Your task to perform on an android device: Go to Reddit.com Image 0: 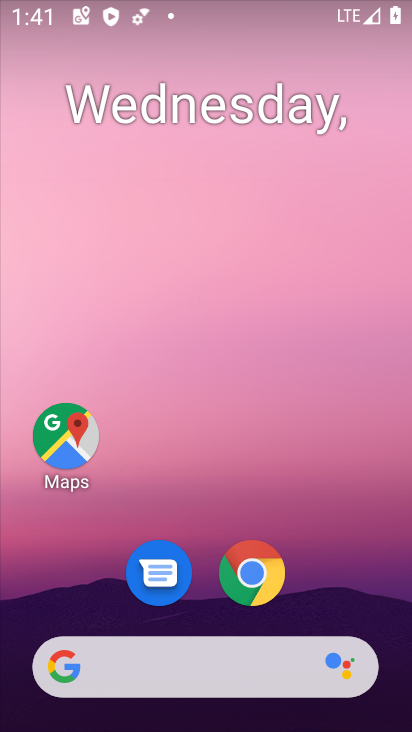
Step 0: drag from (213, 531) to (231, 233)
Your task to perform on an android device: Go to Reddit.com Image 1: 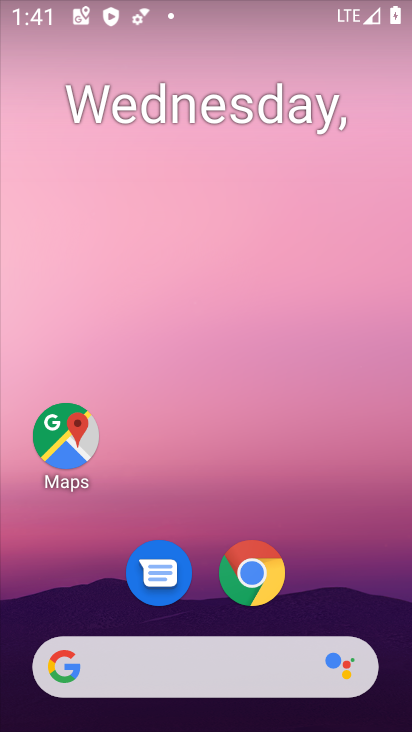
Step 1: drag from (233, 369) to (314, 0)
Your task to perform on an android device: Go to Reddit.com Image 2: 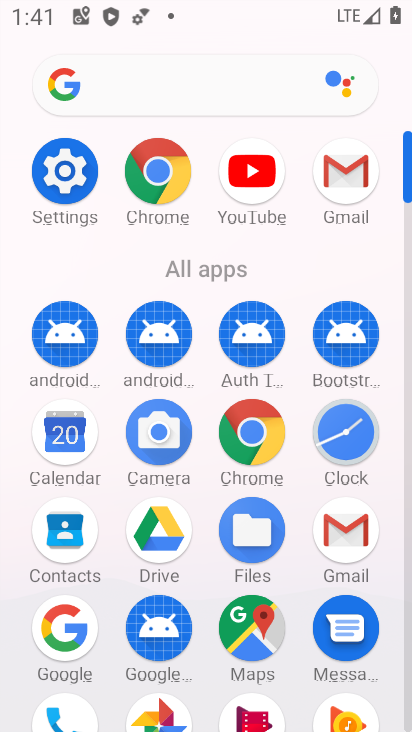
Step 2: click (67, 629)
Your task to perform on an android device: Go to Reddit.com Image 3: 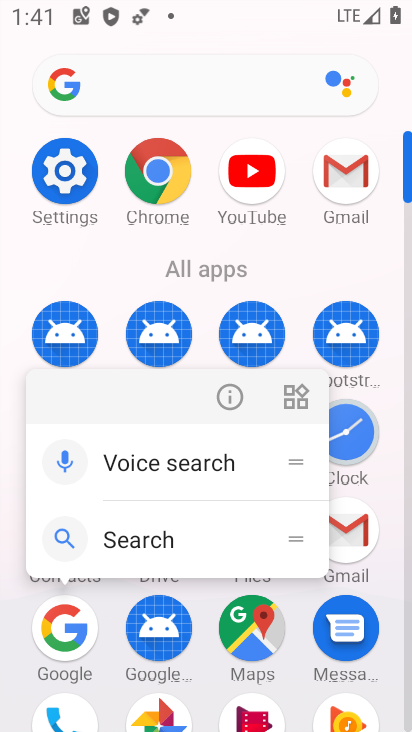
Step 3: click (67, 629)
Your task to perform on an android device: Go to Reddit.com Image 4: 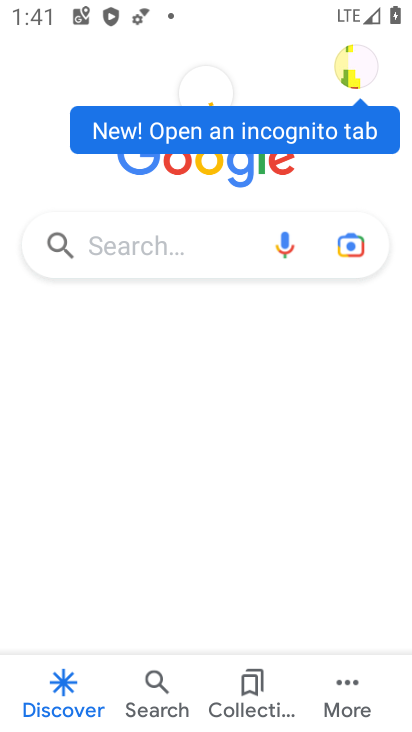
Step 4: click (151, 237)
Your task to perform on an android device: Go to Reddit.com Image 5: 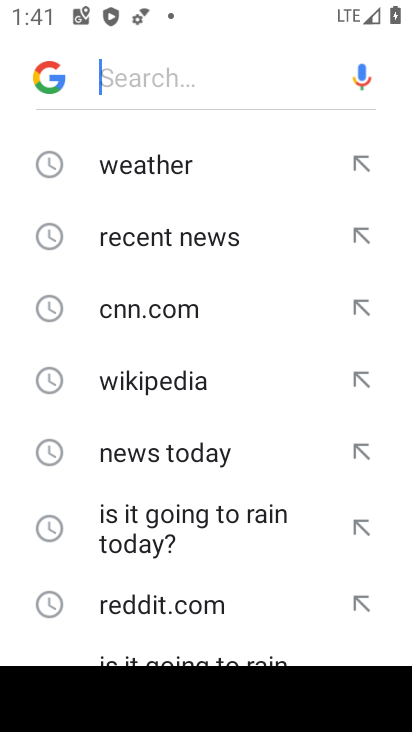
Step 5: type "reddit.com"
Your task to perform on an android device: Go to Reddit.com Image 6: 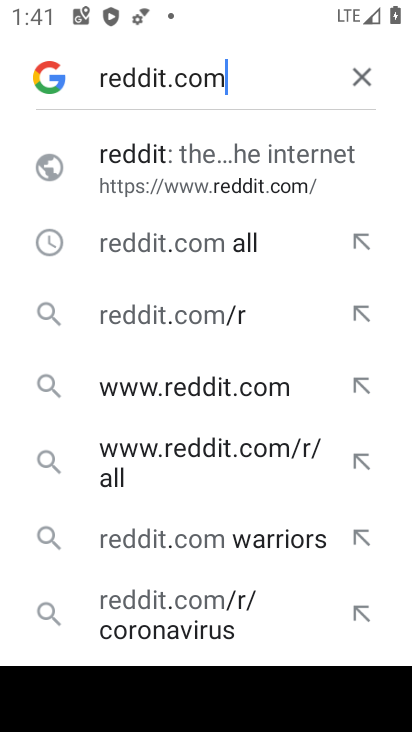
Step 6: click (206, 178)
Your task to perform on an android device: Go to Reddit.com Image 7: 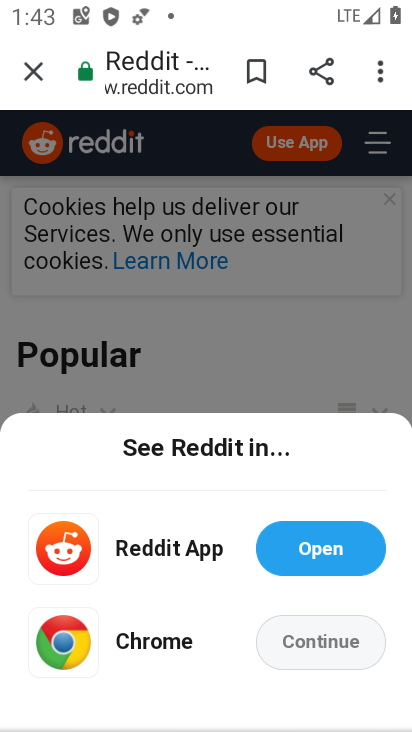
Step 7: task complete